Your task to perform on an android device: What's on my calendar today? Image 0: 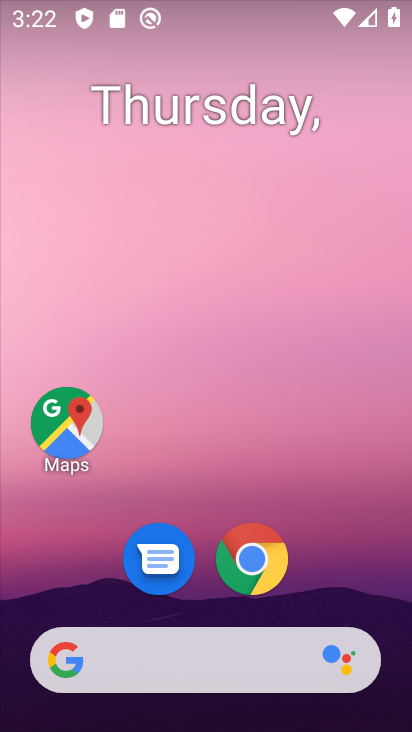
Step 0: drag from (352, 585) to (331, 188)
Your task to perform on an android device: What's on my calendar today? Image 1: 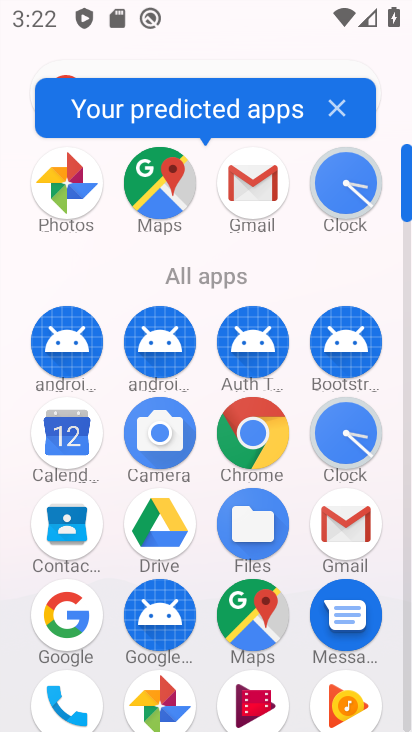
Step 1: click (80, 440)
Your task to perform on an android device: What's on my calendar today? Image 2: 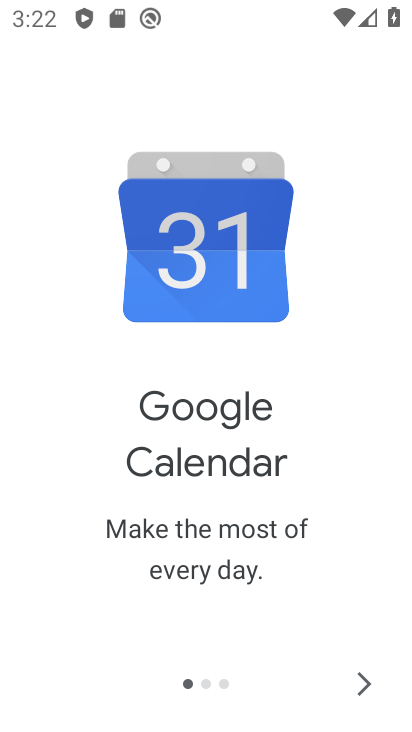
Step 2: click (357, 690)
Your task to perform on an android device: What's on my calendar today? Image 3: 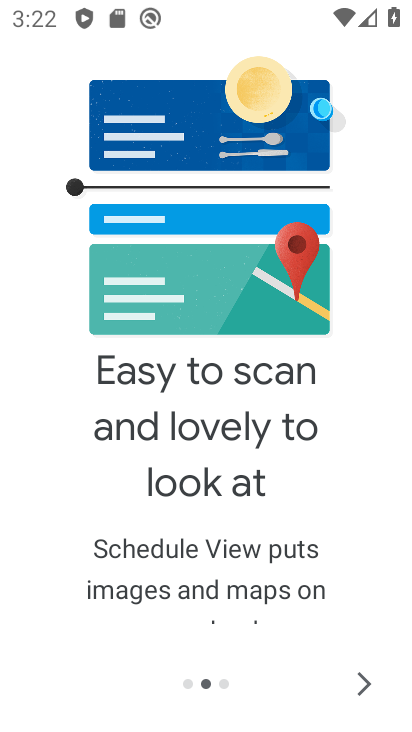
Step 3: click (355, 693)
Your task to perform on an android device: What's on my calendar today? Image 4: 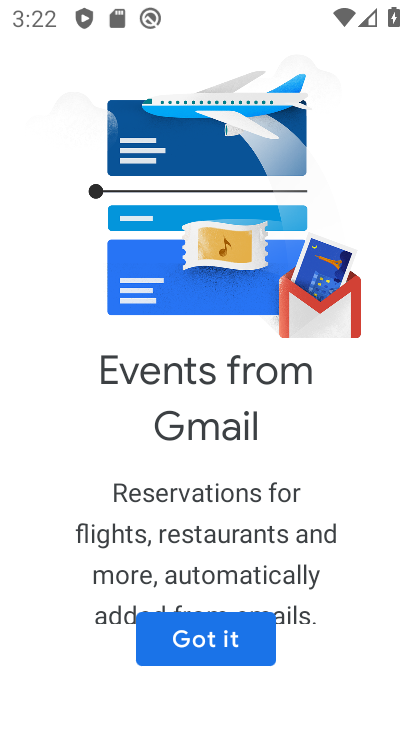
Step 4: click (244, 654)
Your task to perform on an android device: What's on my calendar today? Image 5: 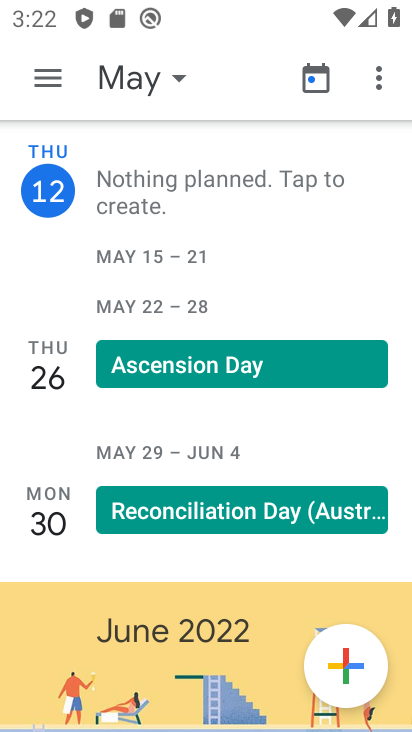
Step 5: drag from (303, 296) to (283, 561)
Your task to perform on an android device: What's on my calendar today? Image 6: 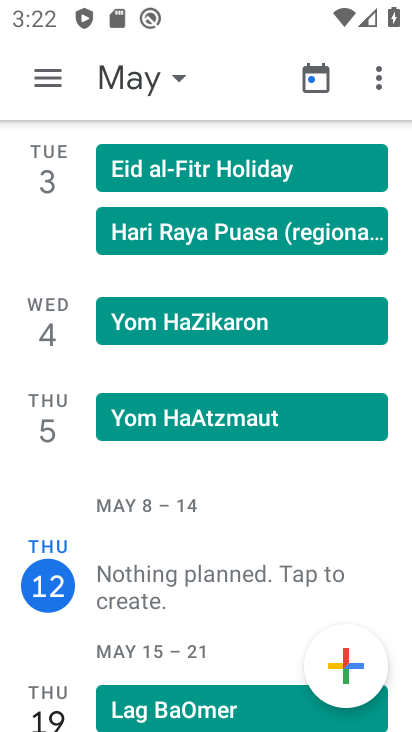
Step 6: click (153, 98)
Your task to perform on an android device: What's on my calendar today? Image 7: 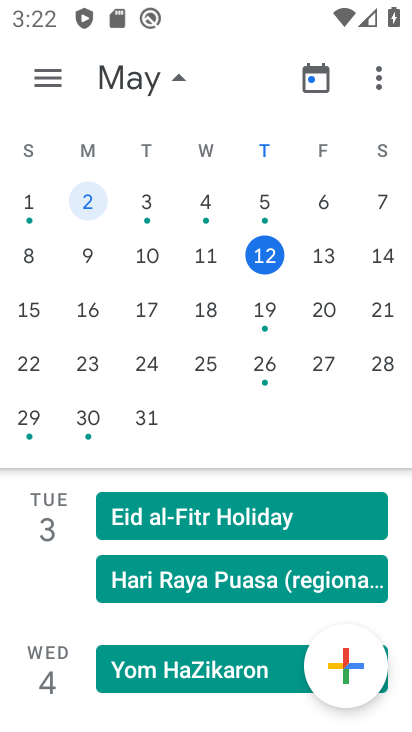
Step 7: click (264, 254)
Your task to perform on an android device: What's on my calendar today? Image 8: 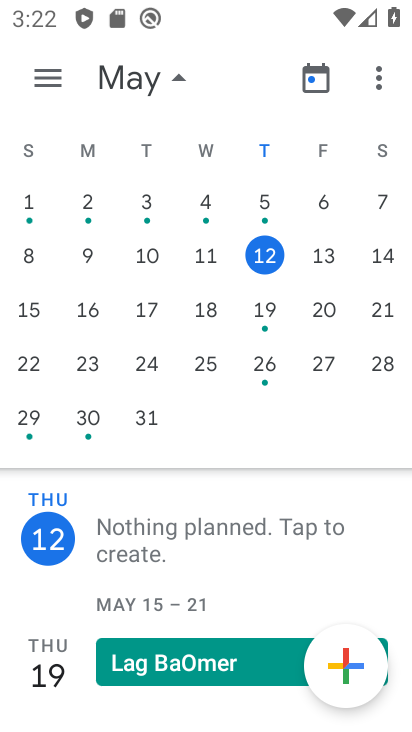
Step 8: task complete